Your task to perform on an android device: turn on notifications settings in the gmail app Image 0: 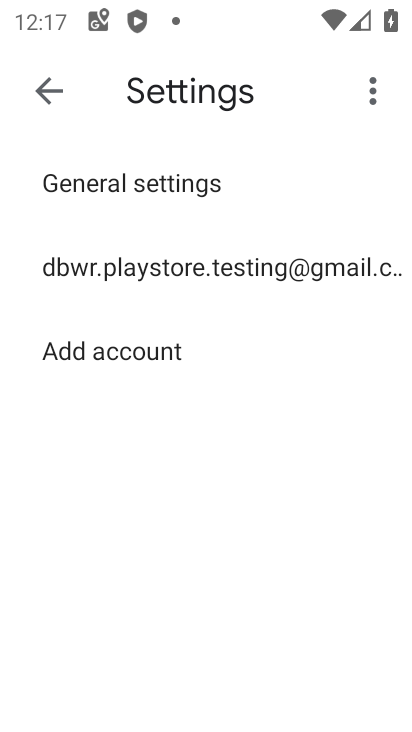
Step 0: press back button
Your task to perform on an android device: turn on notifications settings in the gmail app Image 1: 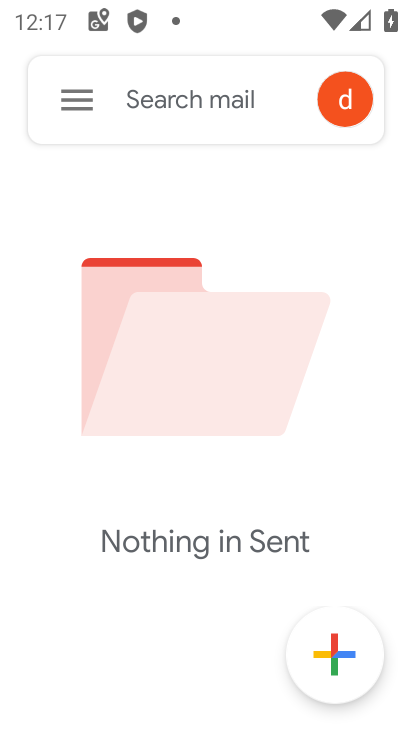
Step 1: press back button
Your task to perform on an android device: turn on notifications settings in the gmail app Image 2: 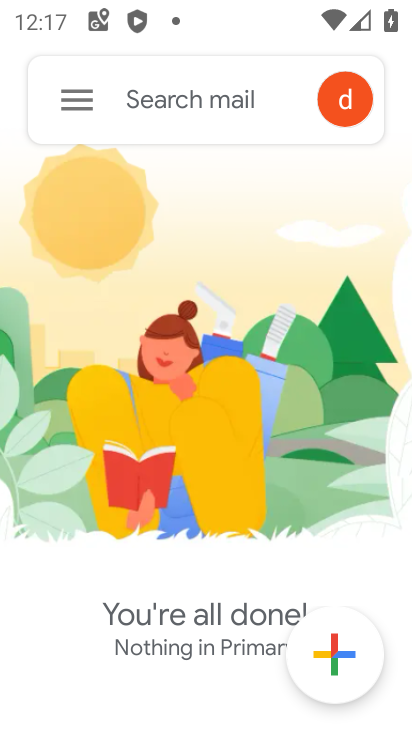
Step 2: press back button
Your task to perform on an android device: turn on notifications settings in the gmail app Image 3: 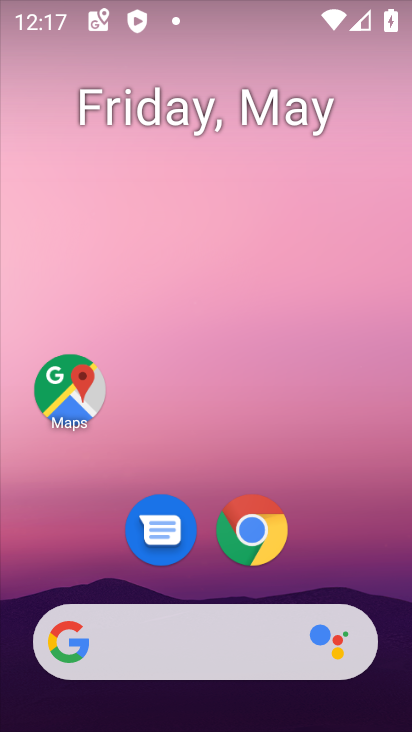
Step 3: drag from (330, 557) to (259, 121)
Your task to perform on an android device: turn on notifications settings in the gmail app Image 4: 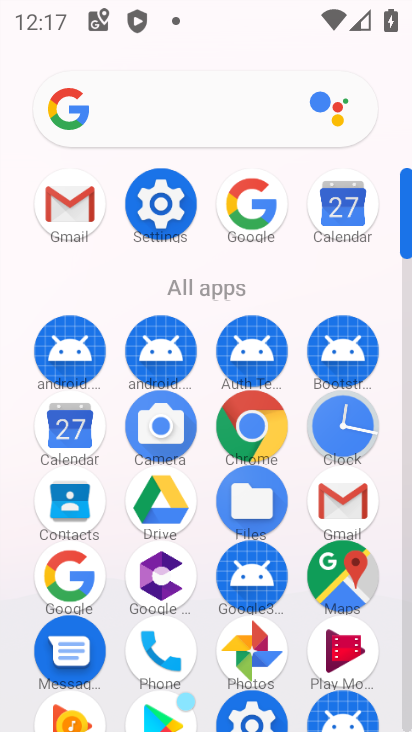
Step 4: drag from (200, 400) to (231, 261)
Your task to perform on an android device: turn on notifications settings in the gmail app Image 5: 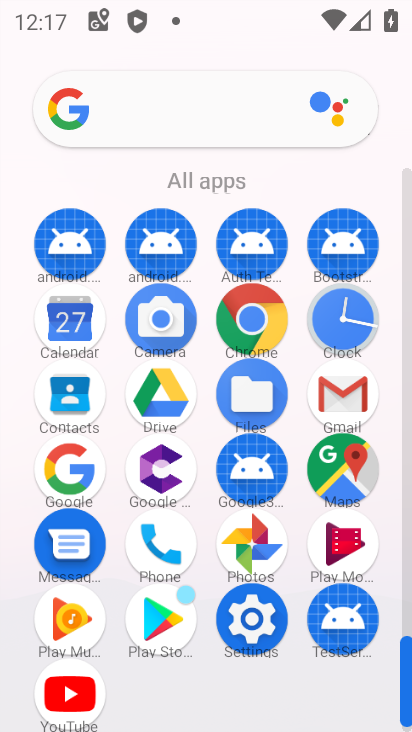
Step 5: click (340, 389)
Your task to perform on an android device: turn on notifications settings in the gmail app Image 6: 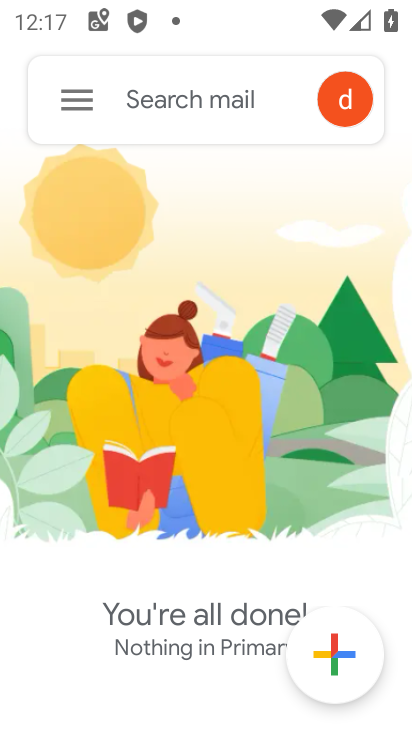
Step 6: click (74, 100)
Your task to perform on an android device: turn on notifications settings in the gmail app Image 7: 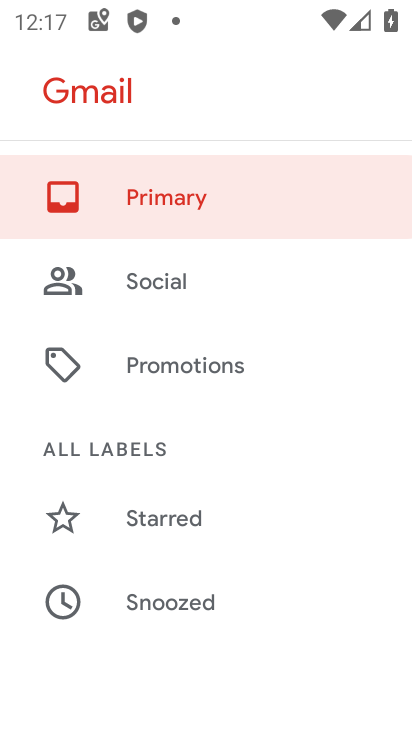
Step 7: drag from (167, 328) to (236, 230)
Your task to perform on an android device: turn on notifications settings in the gmail app Image 8: 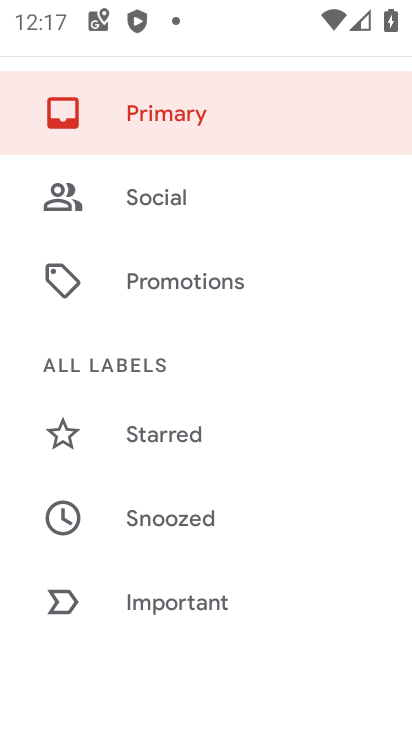
Step 8: drag from (165, 400) to (233, 321)
Your task to perform on an android device: turn on notifications settings in the gmail app Image 9: 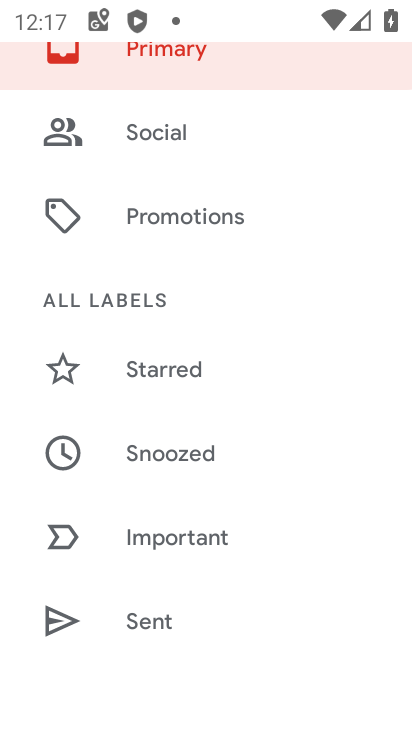
Step 9: drag from (162, 418) to (237, 327)
Your task to perform on an android device: turn on notifications settings in the gmail app Image 10: 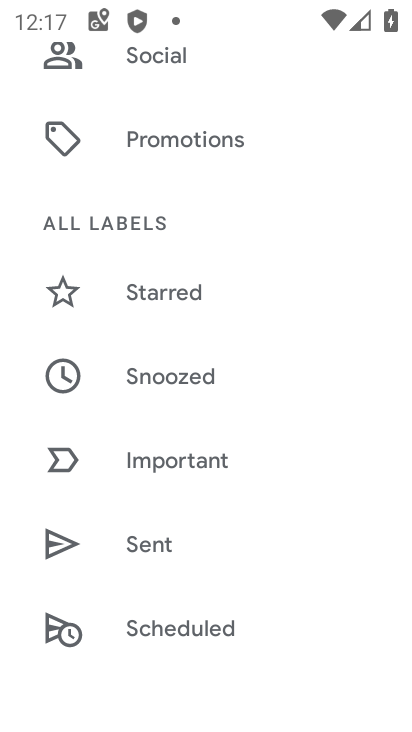
Step 10: drag from (164, 424) to (212, 347)
Your task to perform on an android device: turn on notifications settings in the gmail app Image 11: 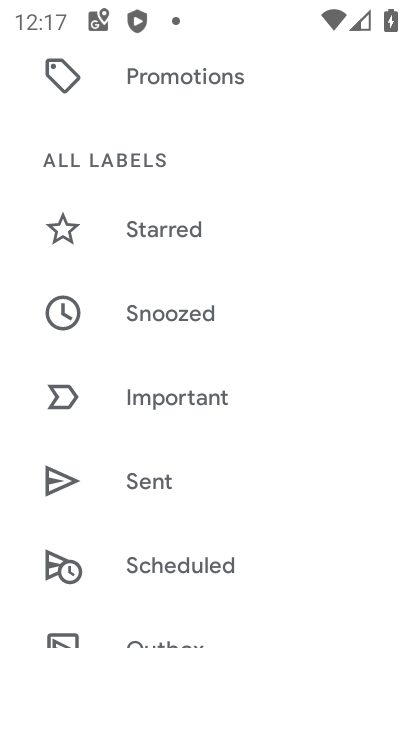
Step 11: drag from (167, 445) to (238, 347)
Your task to perform on an android device: turn on notifications settings in the gmail app Image 12: 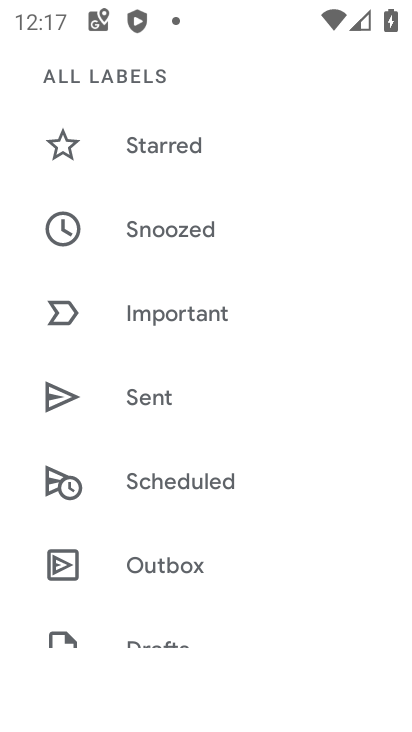
Step 12: drag from (172, 515) to (228, 421)
Your task to perform on an android device: turn on notifications settings in the gmail app Image 13: 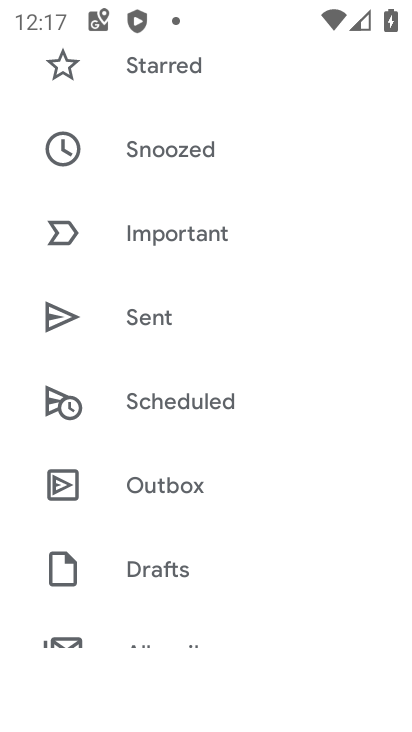
Step 13: drag from (158, 516) to (251, 411)
Your task to perform on an android device: turn on notifications settings in the gmail app Image 14: 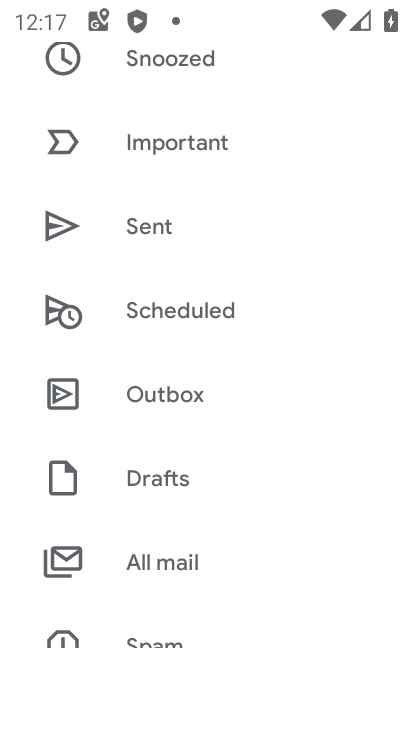
Step 14: drag from (160, 516) to (233, 409)
Your task to perform on an android device: turn on notifications settings in the gmail app Image 15: 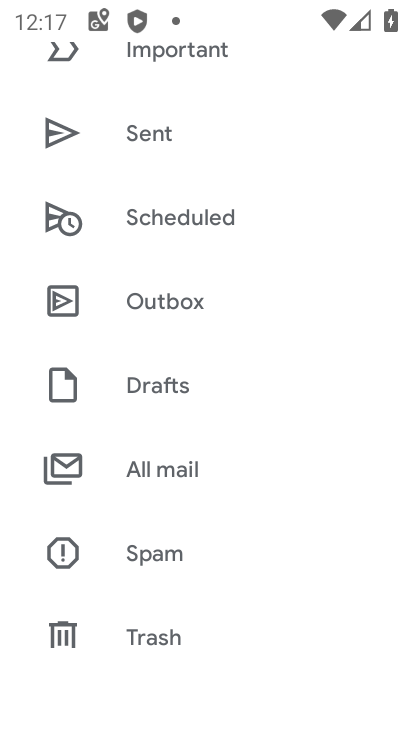
Step 15: drag from (154, 507) to (194, 409)
Your task to perform on an android device: turn on notifications settings in the gmail app Image 16: 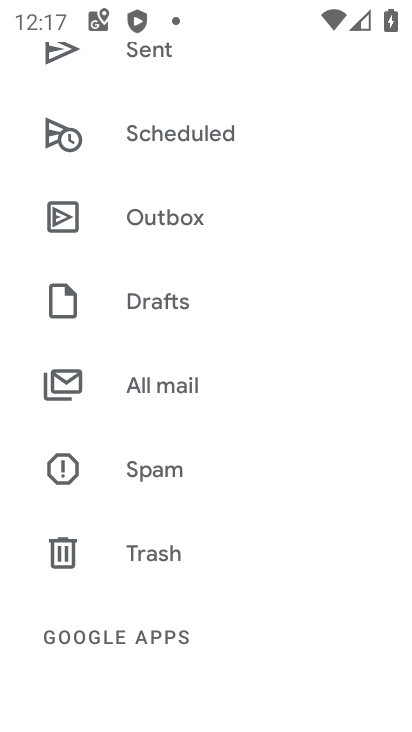
Step 16: drag from (141, 510) to (195, 411)
Your task to perform on an android device: turn on notifications settings in the gmail app Image 17: 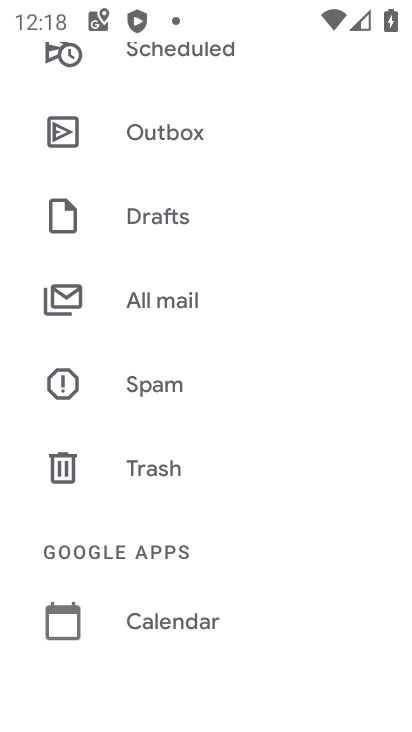
Step 17: drag from (136, 507) to (218, 411)
Your task to perform on an android device: turn on notifications settings in the gmail app Image 18: 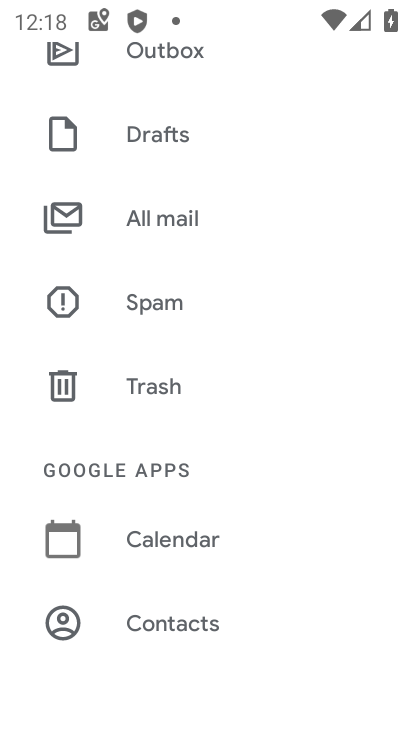
Step 18: drag from (137, 504) to (246, 376)
Your task to perform on an android device: turn on notifications settings in the gmail app Image 19: 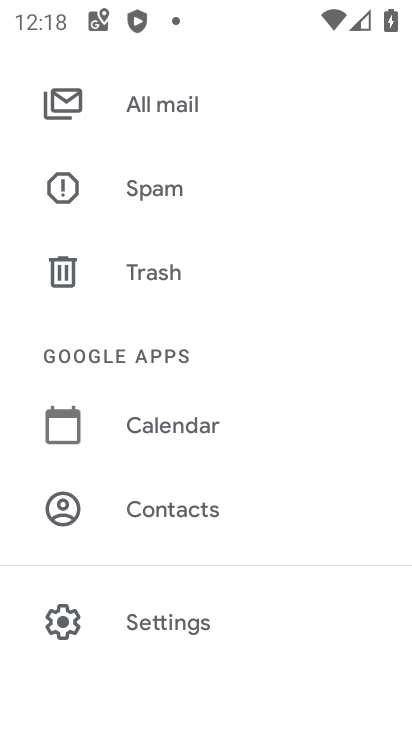
Step 19: drag from (148, 484) to (249, 367)
Your task to perform on an android device: turn on notifications settings in the gmail app Image 20: 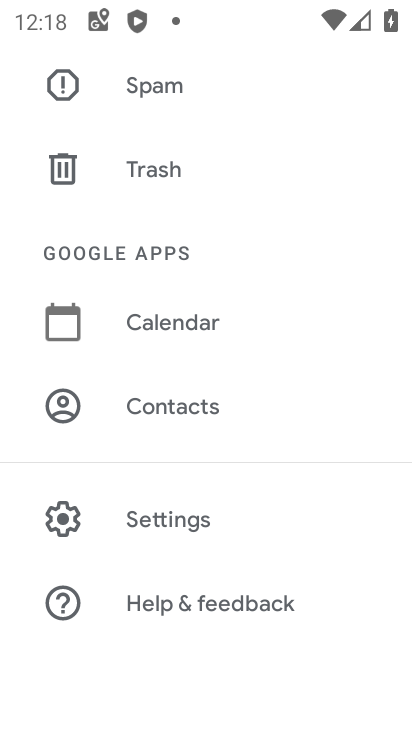
Step 20: click (184, 519)
Your task to perform on an android device: turn on notifications settings in the gmail app Image 21: 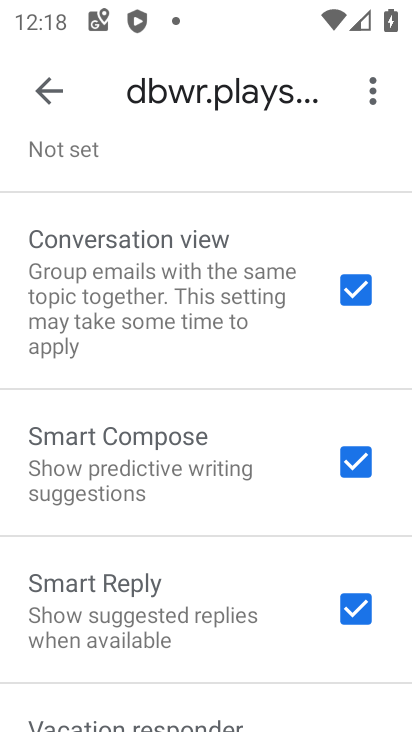
Step 21: drag from (209, 164) to (193, 362)
Your task to perform on an android device: turn on notifications settings in the gmail app Image 22: 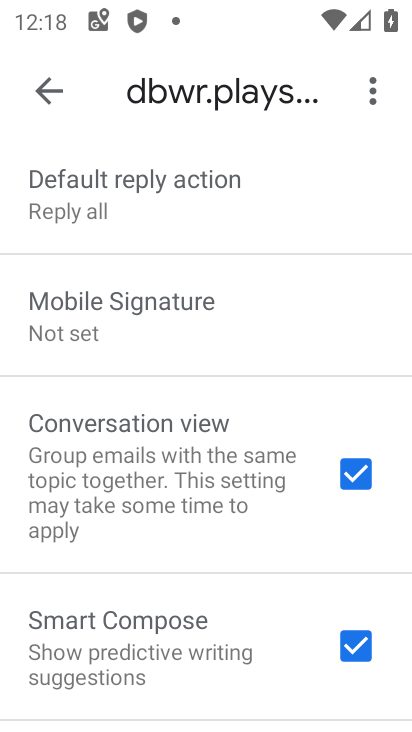
Step 22: drag from (227, 221) to (217, 340)
Your task to perform on an android device: turn on notifications settings in the gmail app Image 23: 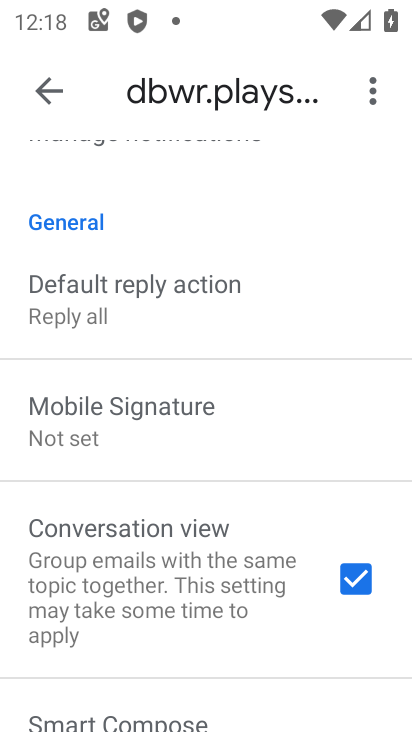
Step 23: drag from (203, 200) to (200, 350)
Your task to perform on an android device: turn on notifications settings in the gmail app Image 24: 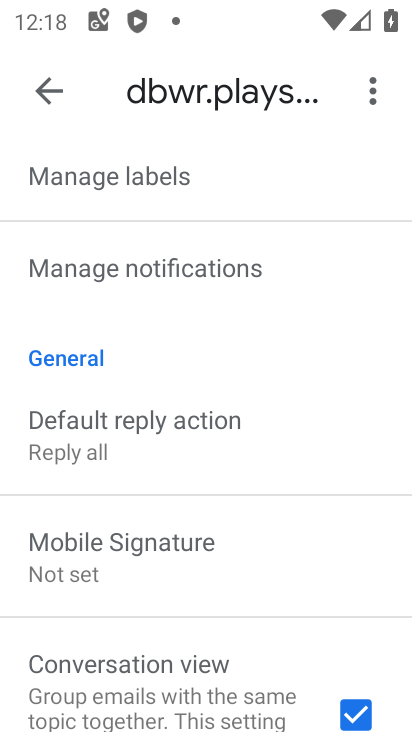
Step 24: click (193, 268)
Your task to perform on an android device: turn on notifications settings in the gmail app Image 25: 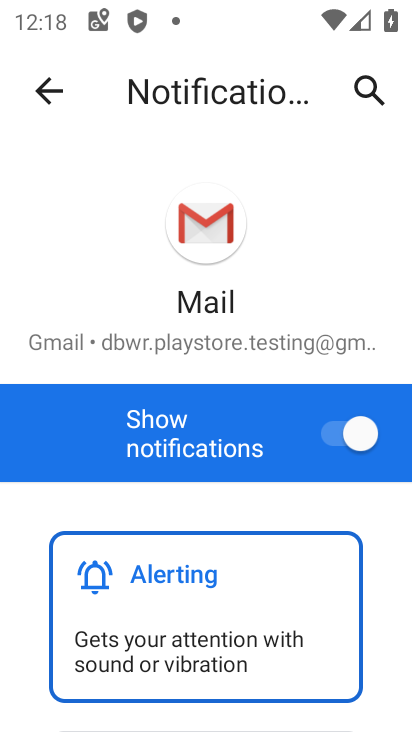
Step 25: task complete